Your task to perform on an android device: delete location history Image 0: 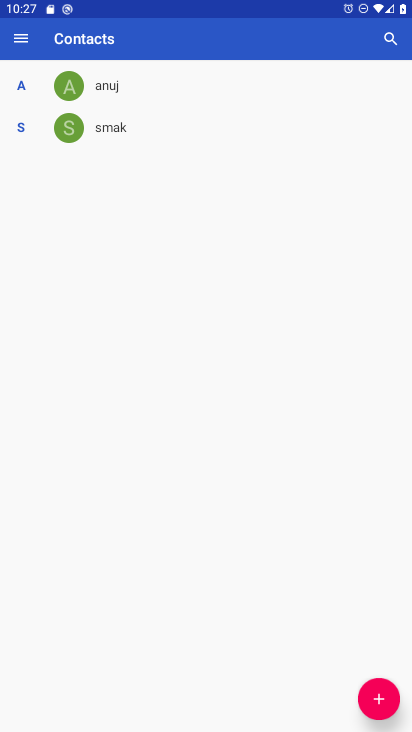
Step 0: press home button
Your task to perform on an android device: delete location history Image 1: 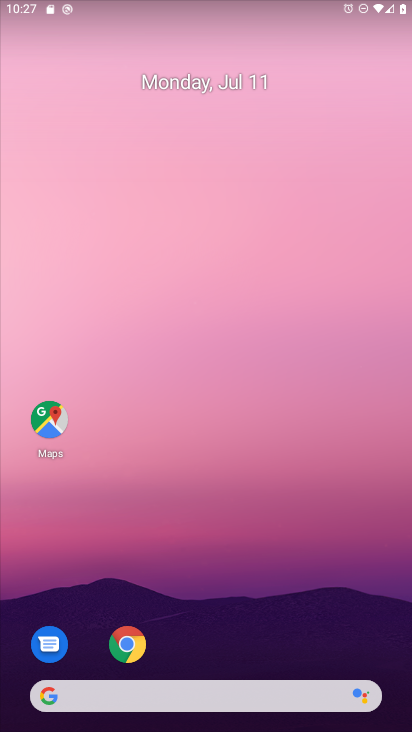
Step 1: drag from (179, 692) to (174, 279)
Your task to perform on an android device: delete location history Image 2: 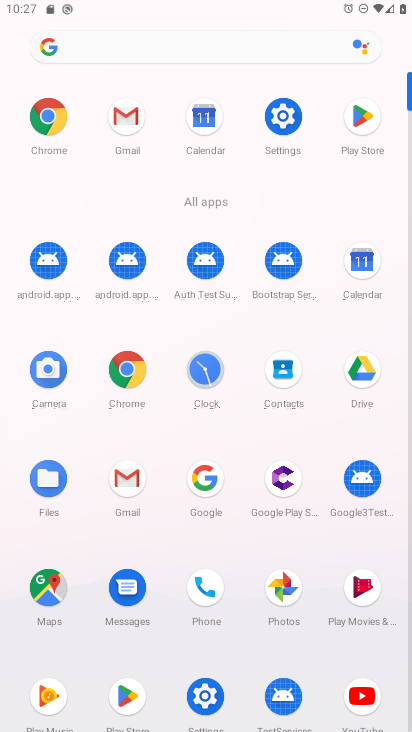
Step 2: click (285, 118)
Your task to perform on an android device: delete location history Image 3: 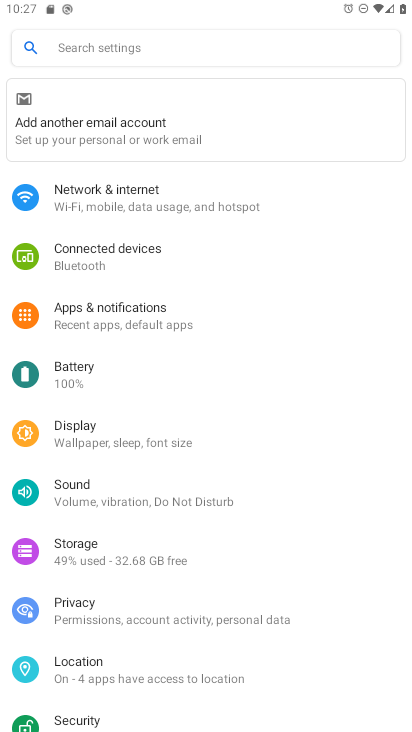
Step 3: click (79, 673)
Your task to perform on an android device: delete location history Image 4: 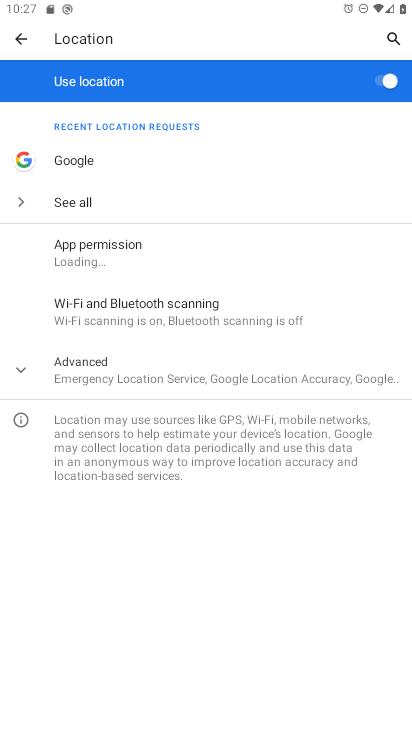
Step 4: click (105, 362)
Your task to perform on an android device: delete location history Image 5: 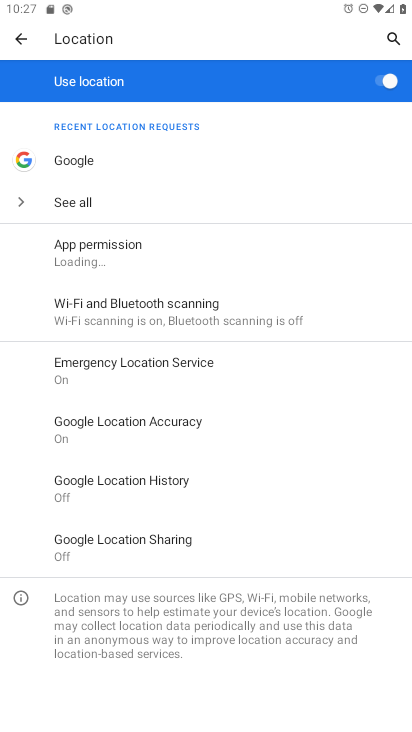
Step 5: click (142, 484)
Your task to perform on an android device: delete location history Image 6: 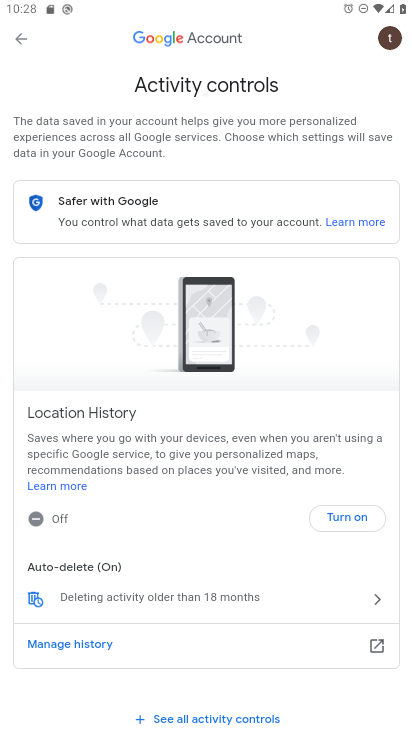
Step 6: click (202, 602)
Your task to perform on an android device: delete location history Image 7: 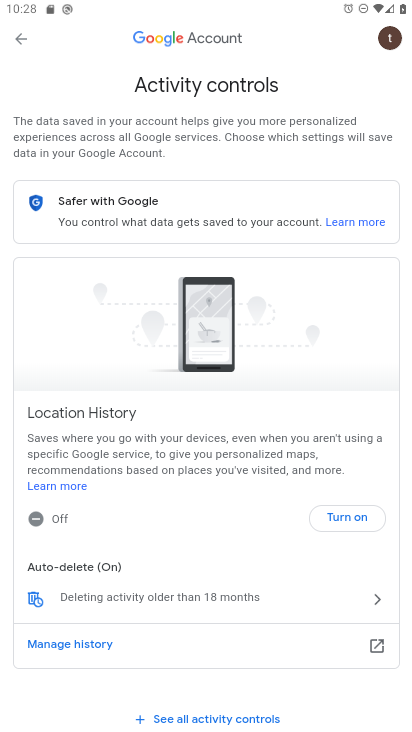
Step 7: click (156, 598)
Your task to perform on an android device: delete location history Image 8: 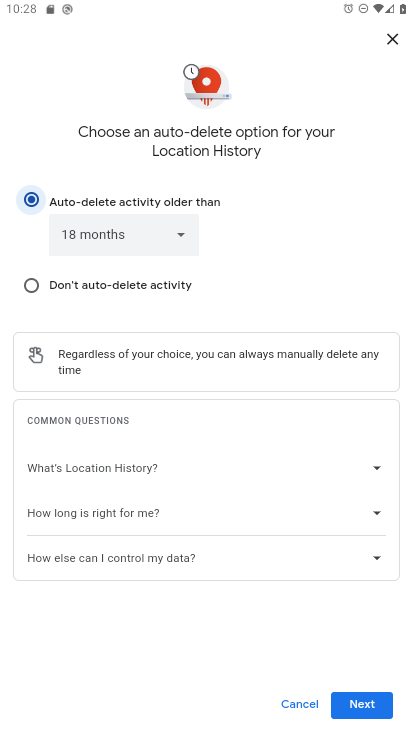
Step 8: click (361, 709)
Your task to perform on an android device: delete location history Image 9: 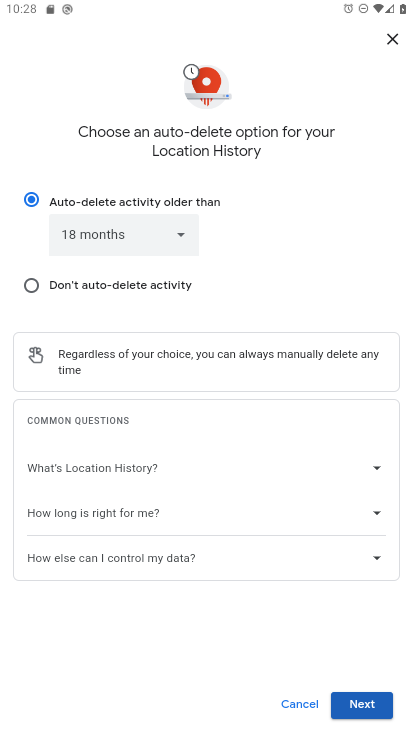
Step 9: click (355, 709)
Your task to perform on an android device: delete location history Image 10: 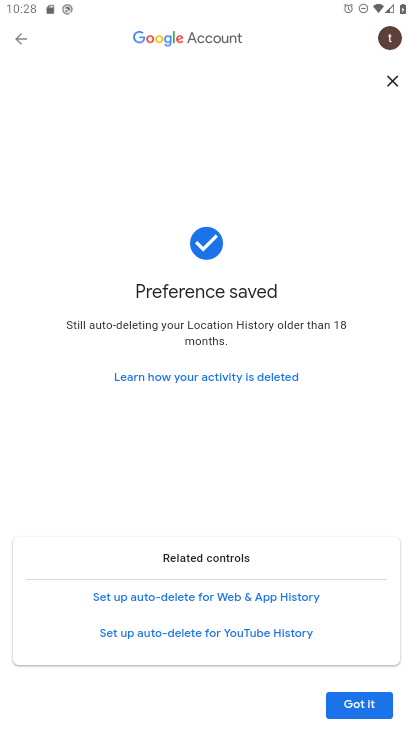
Step 10: click (355, 709)
Your task to perform on an android device: delete location history Image 11: 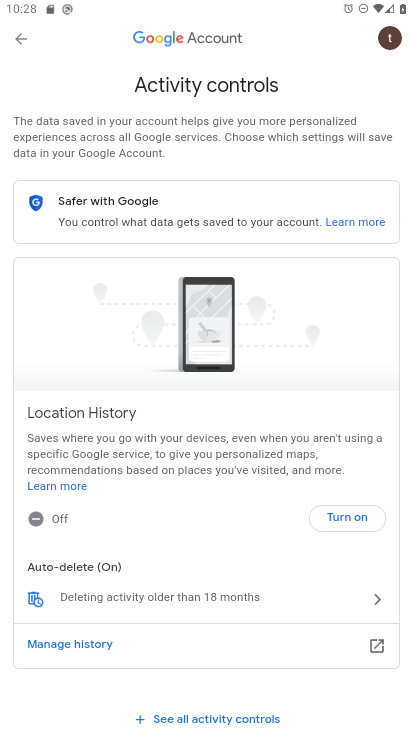
Step 11: task complete